Your task to perform on an android device: choose inbox layout in the gmail app Image 0: 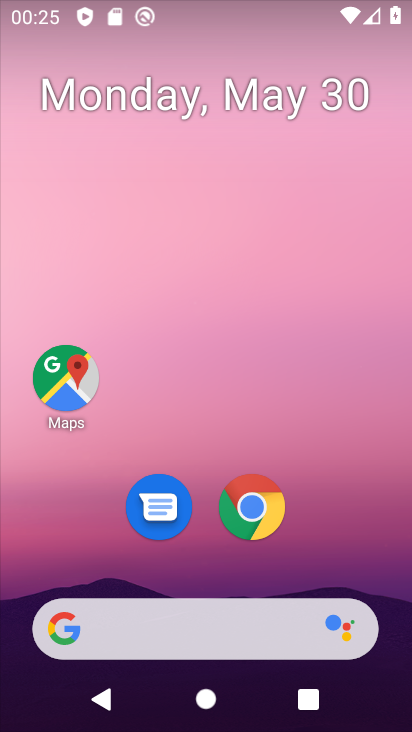
Step 0: drag from (338, 584) to (284, 223)
Your task to perform on an android device: choose inbox layout in the gmail app Image 1: 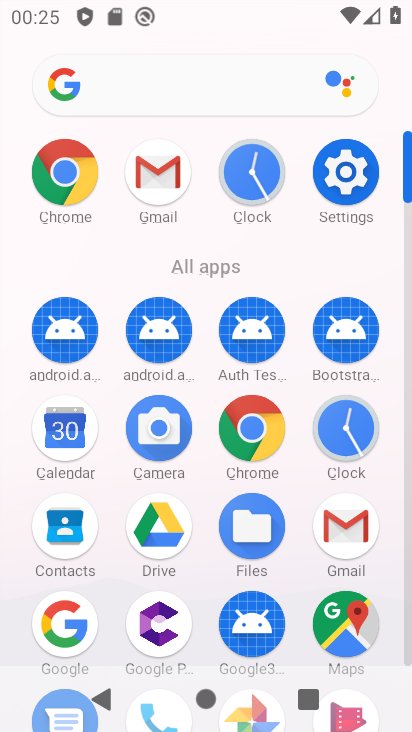
Step 1: click (336, 525)
Your task to perform on an android device: choose inbox layout in the gmail app Image 2: 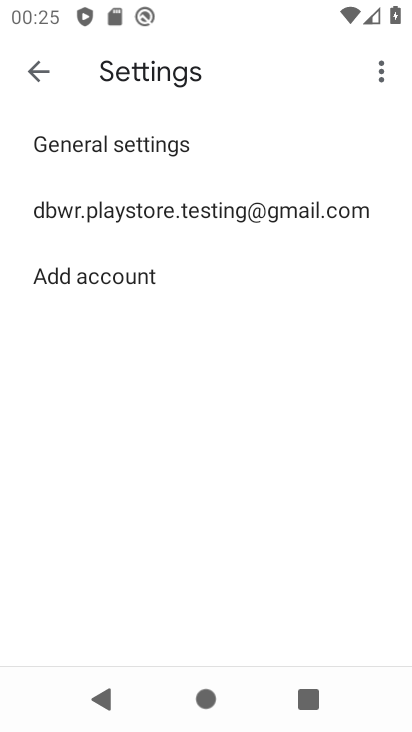
Step 2: click (226, 202)
Your task to perform on an android device: choose inbox layout in the gmail app Image 3: 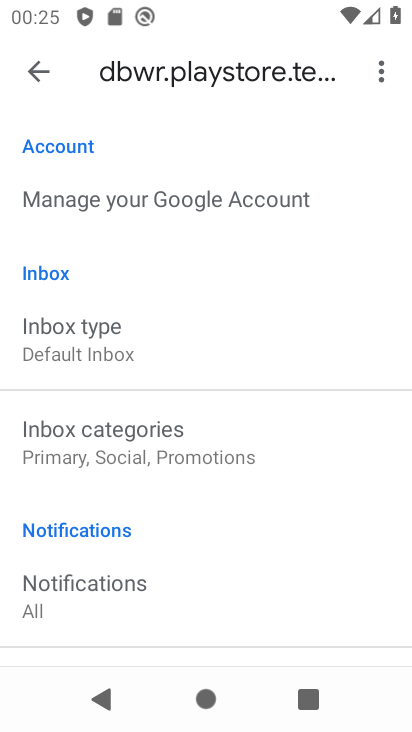
Step 3: click (112, 341)
Your task to perform on an android device: choose inbox layout in the gmail app Image 4: 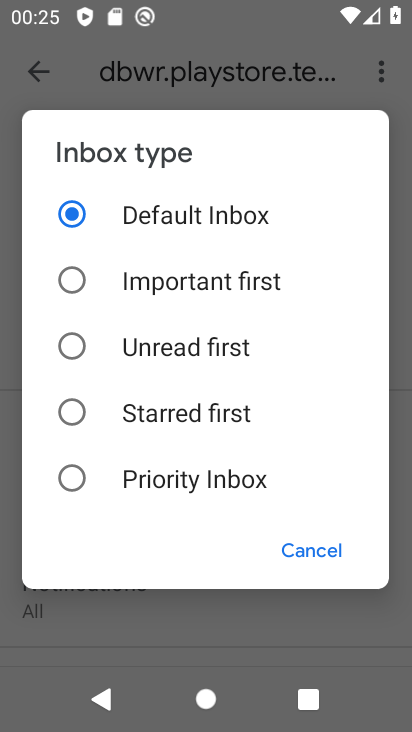
Step 4: click (182, 336)
Your task to perform on an android device: choose inbox layout in the gmail app Image 5: 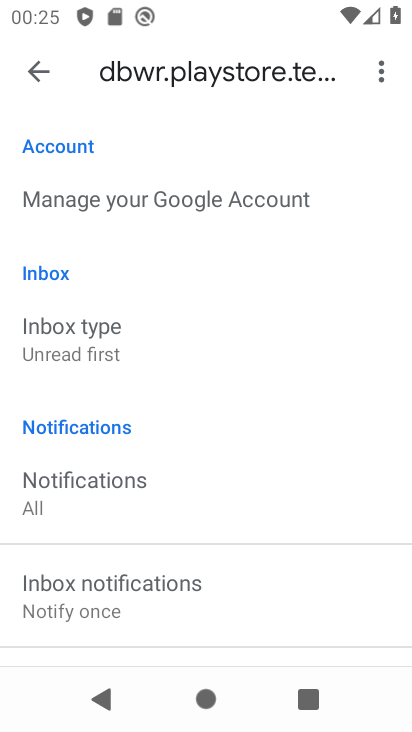
Step 5: task complete